Your task to perform on an android device: Open calendar and show me the second week of next month Image 0: 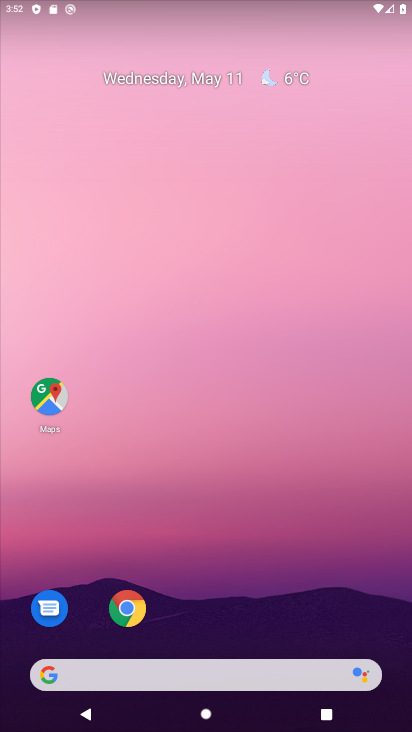
Step 0: drag from (229, 681) to (240, 258)
Your task to perform on an android device: Open calendar and show me the second week of next month Image 1: 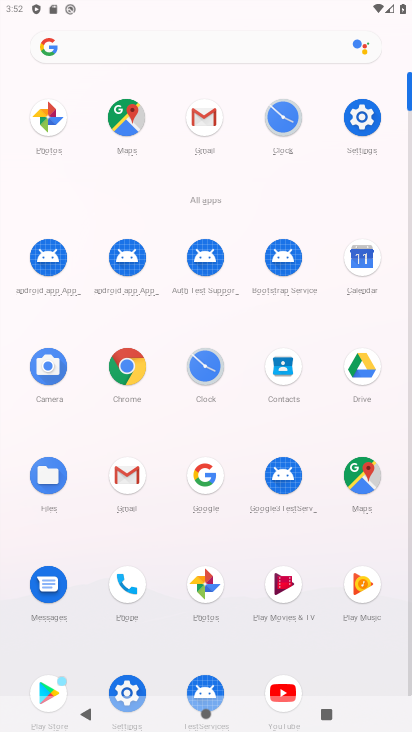
Step 1: click (359, 263)
Your task to perform on an android device: Open calendar and show me the second week of next month Image 2: 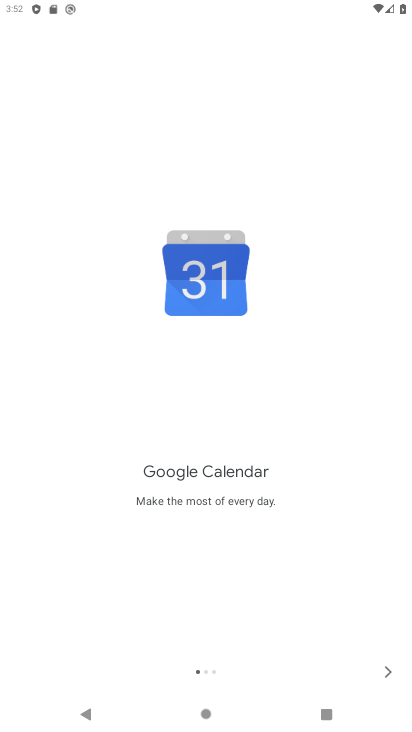
Step 2: click (388, 668)
Your task to perform on an android device: Open calendar and show me the second week of next month Image 3: 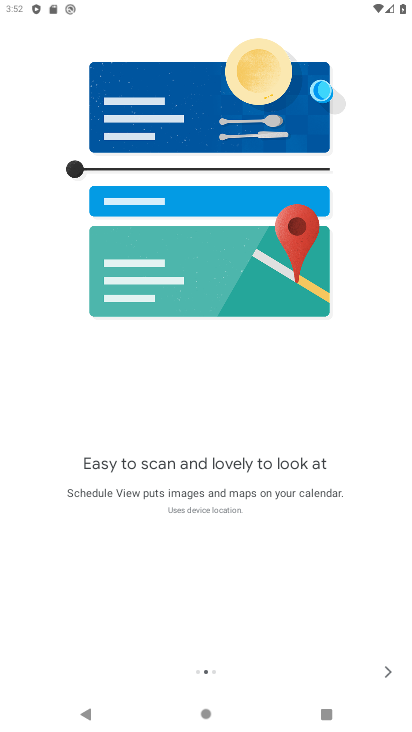
Step 3: click (388, 668)
Your task to perform on an android device: Open calendar and show me the second week of next month Image 4: 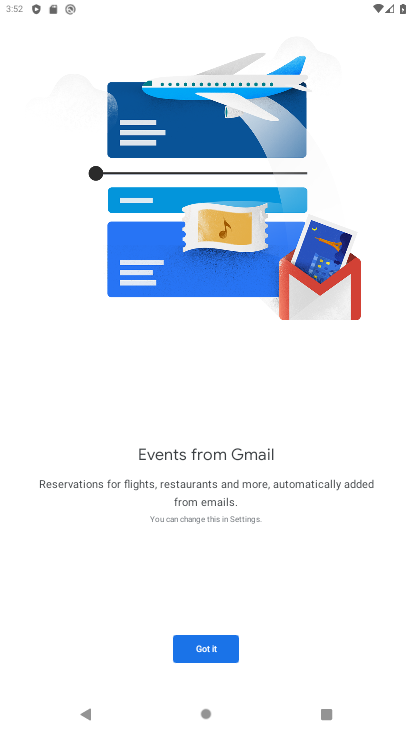
Step 4: click (206, 648)
Your task to perform on an android device: Open calendar and show me the second week of next month Image 5: 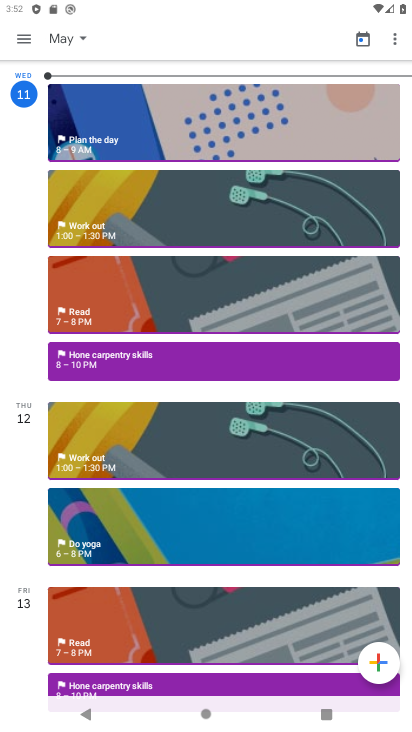
Step 5: drag from (187, 101) to (185, 395)
Your task to perform on an android device: Open calendar and show me the second week of next month Image 6: 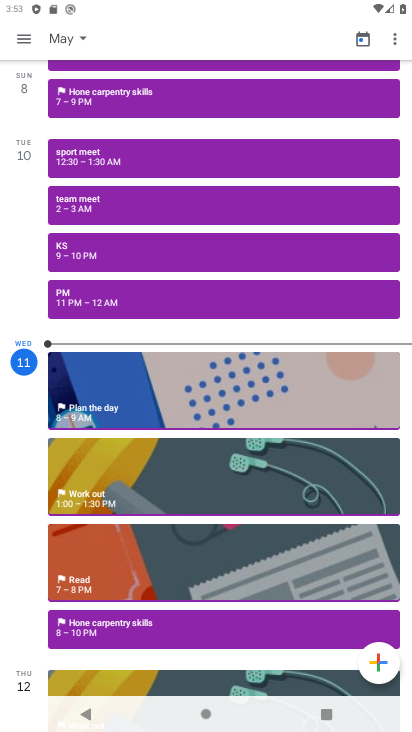
Step 6: drag from (155, 93) to (155, 519)
Your task to perform on an android device: Open calendar and show me the second week of next month Image 7: 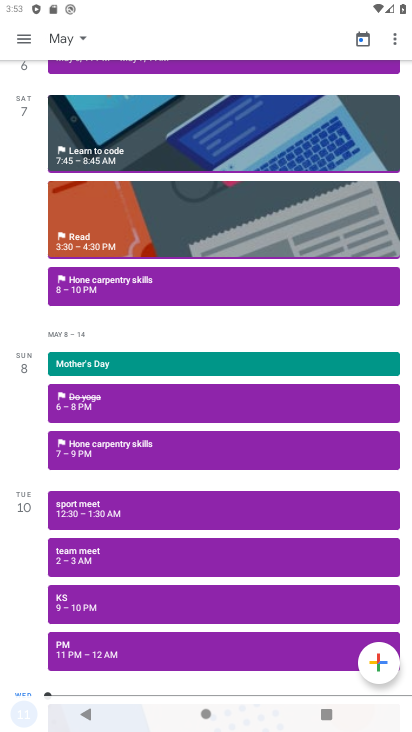
Step 7: click (62, 37)
Your task to perform on an android device: Open calendar and show me the second week of next month Image 8: 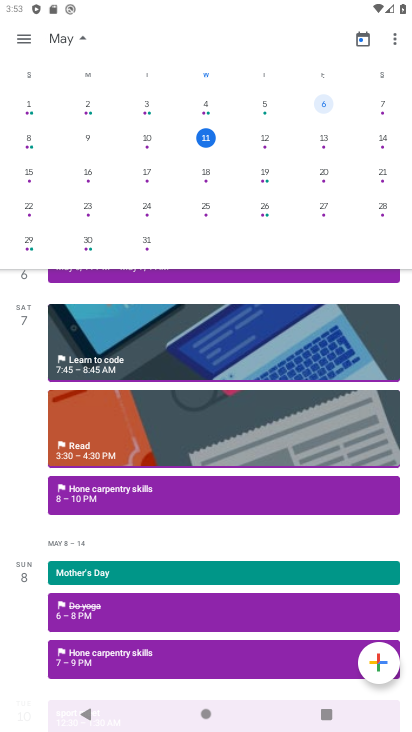
Step 8: drag from (377, 153) to (5, 139)
Your task to perform on an android device: Open calendar and show me the second week of next month Image 9: 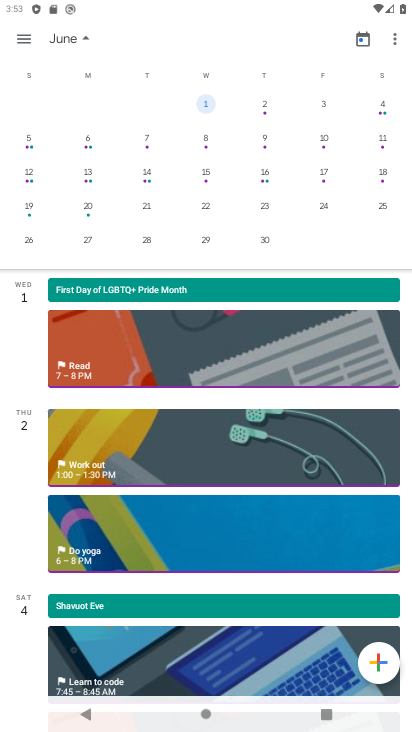
Step 9: click (88, 171)
Your task to perform on an android device: Open calendar and show me the second week of next month Image 10: 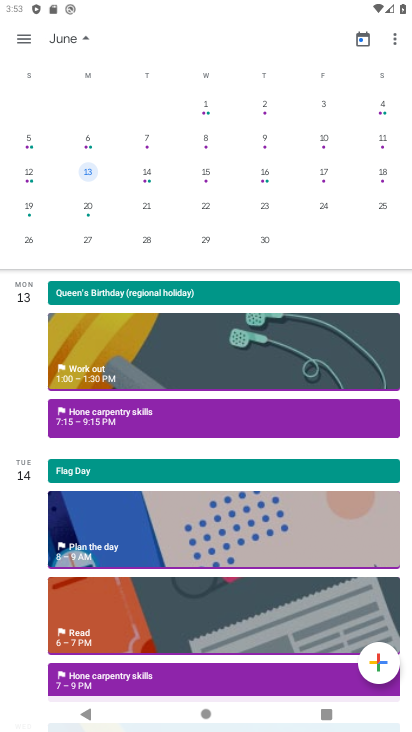
Step 10: task complete